Your task to perform on an android device: Search for dell alienware on amazon, select the first entry, add it to the cart, then select checkout. Image 0: 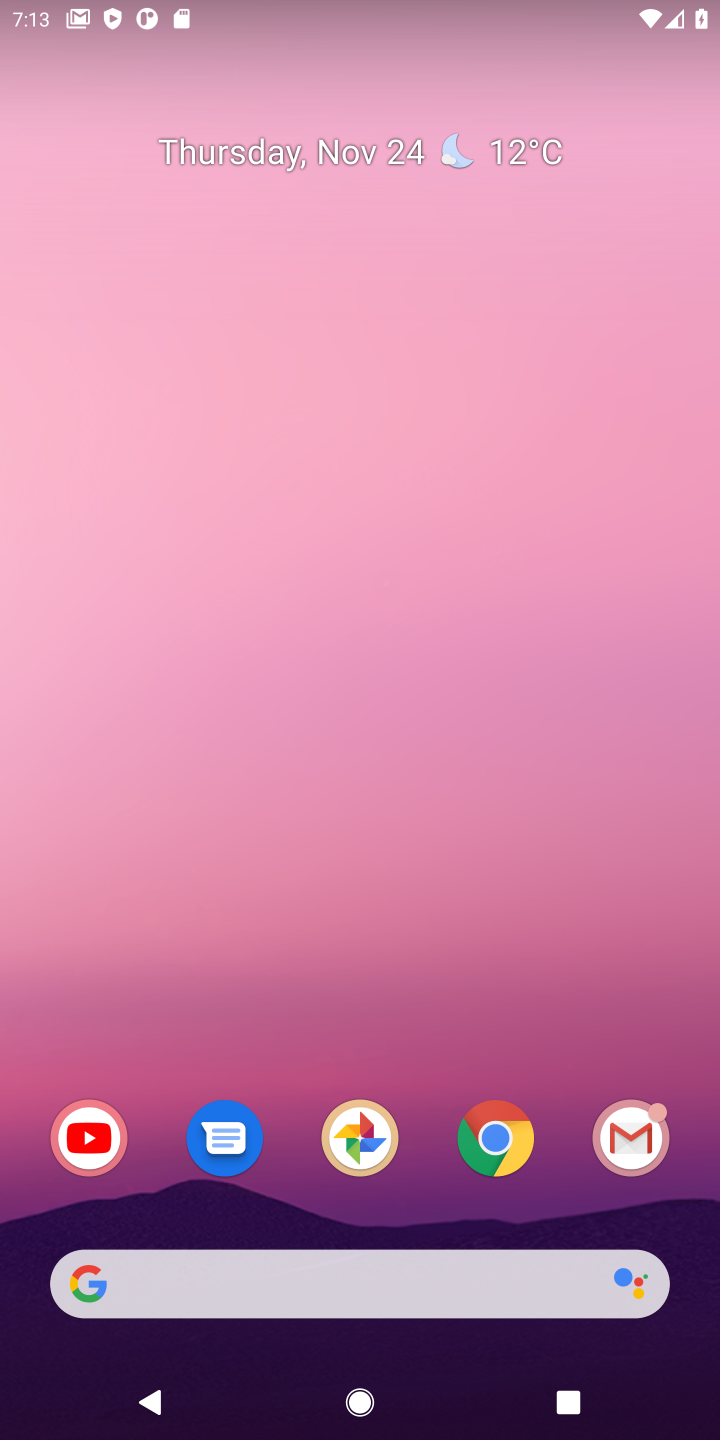
Step 0: click (499, 1159)
Your task to perform on an android device: Search for dell alienware on amazon, select the first entry, add it to the cart, then select checkout. Image 1: 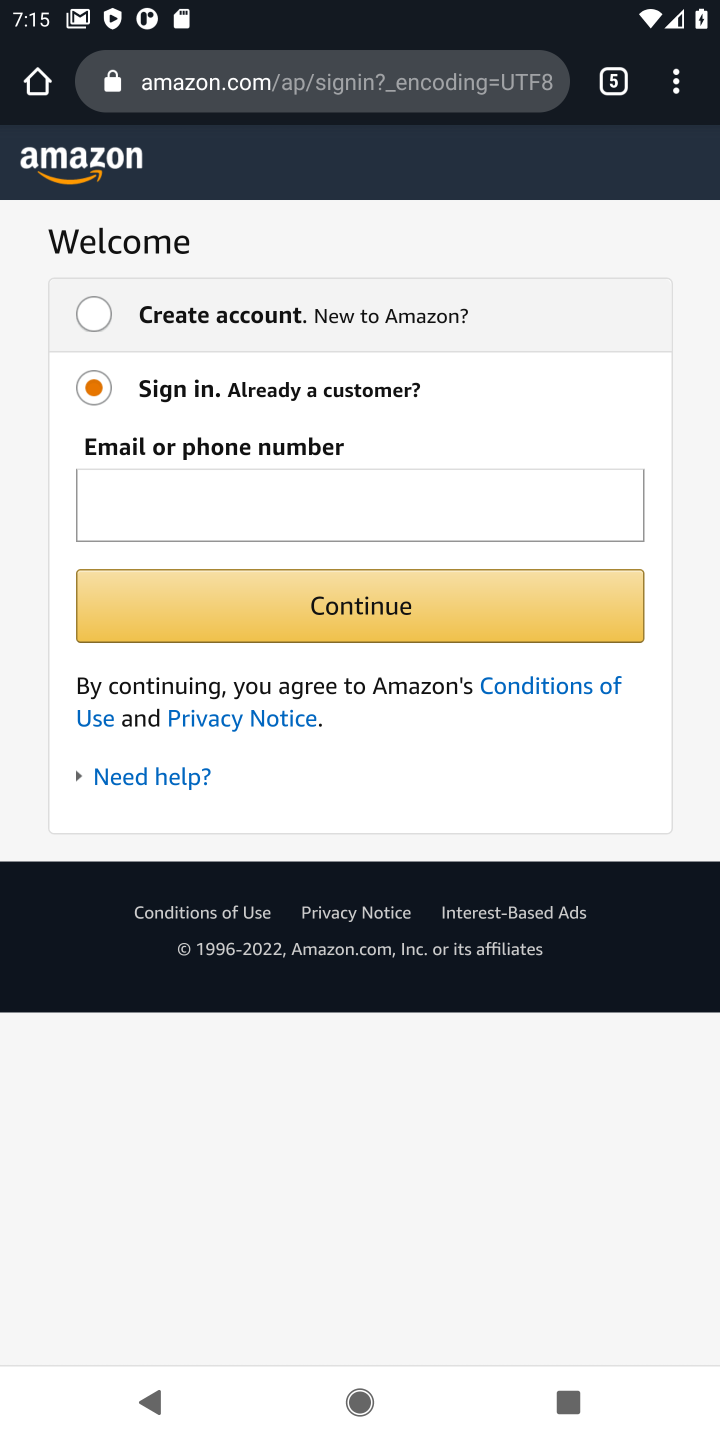
Step 1: press back button
Your task to perform on an android device: Search for dell alienware on amazon, select the first entry, add it to the cart, then select checkout. Image 2: 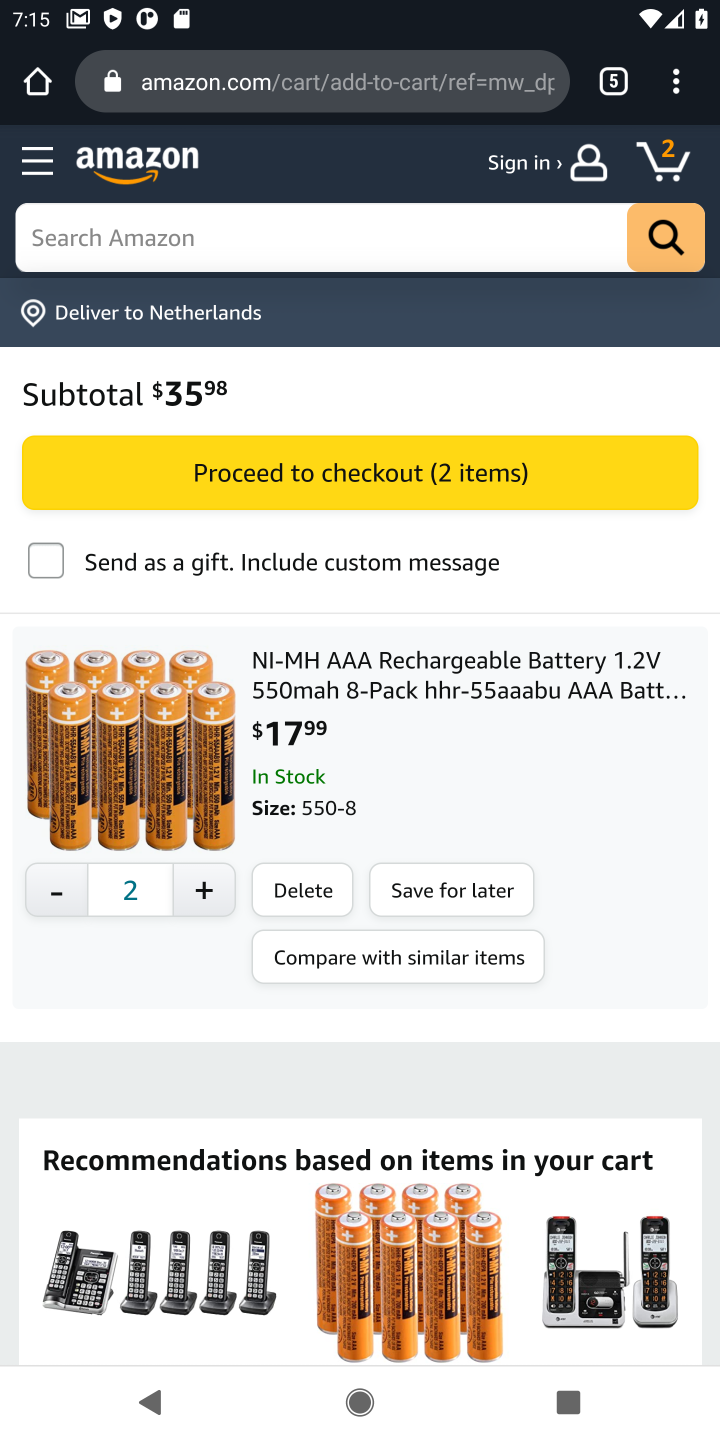
Step 2: click (358, 228)
Your task to perform on an android device: Search for dell alienware on amazon, select the first entry, add it to the cart, then select checkout. Image 3: 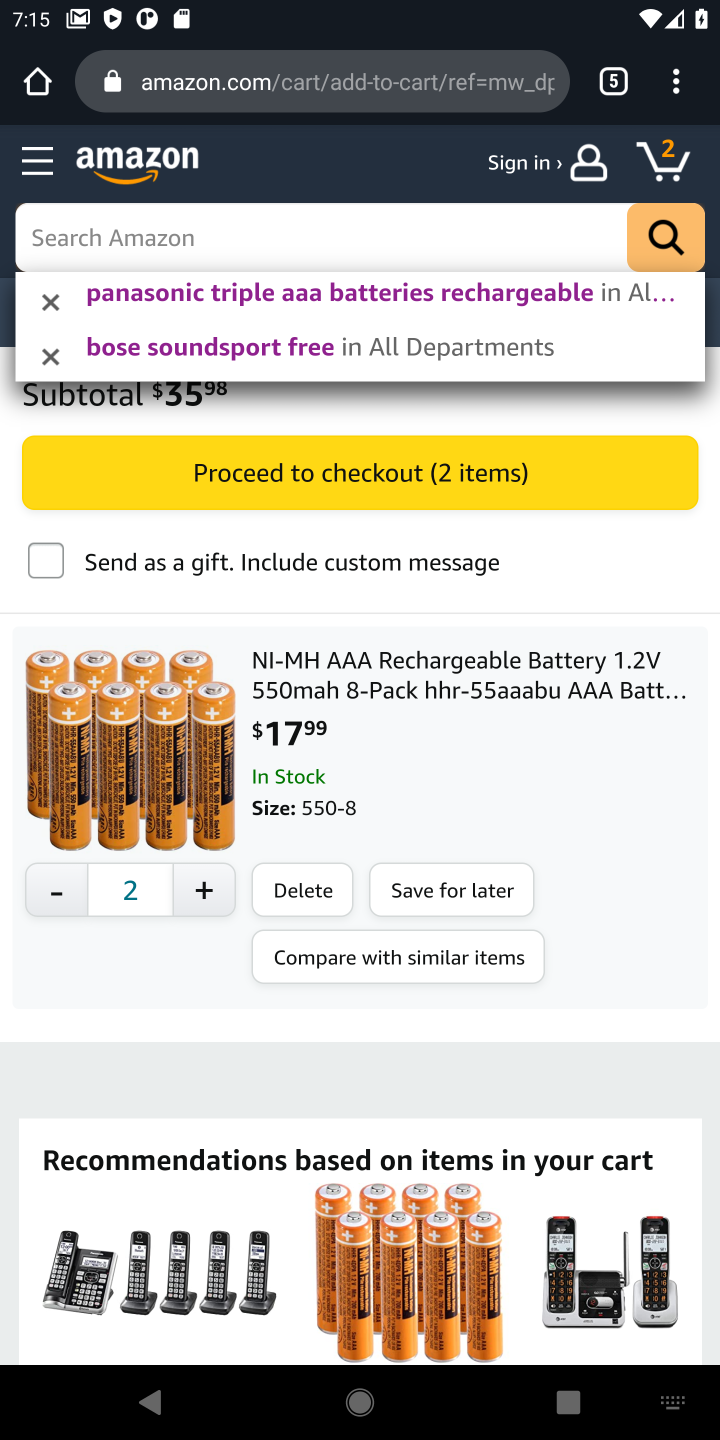
Step 3: click (314, 249)
Your task to perform on an android device: Search for dell alienware on amazon, select the first entry, add it to the cart, then select checkout. Image 4: 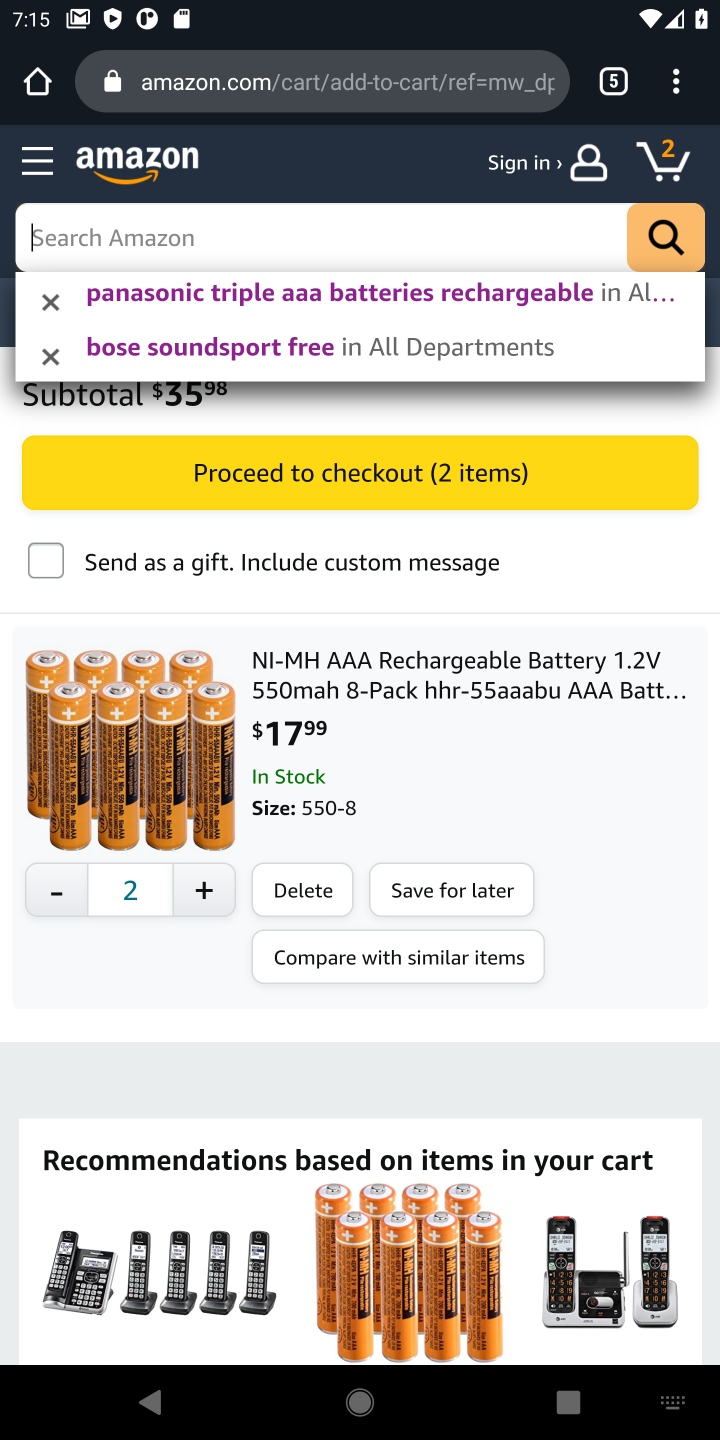
Step 4: type "dell alienware on amazon"
Your task to perform on an android device: Search for dell alienware on amazon, select the first entry, add it to the cart, then select checkout. Image 5: 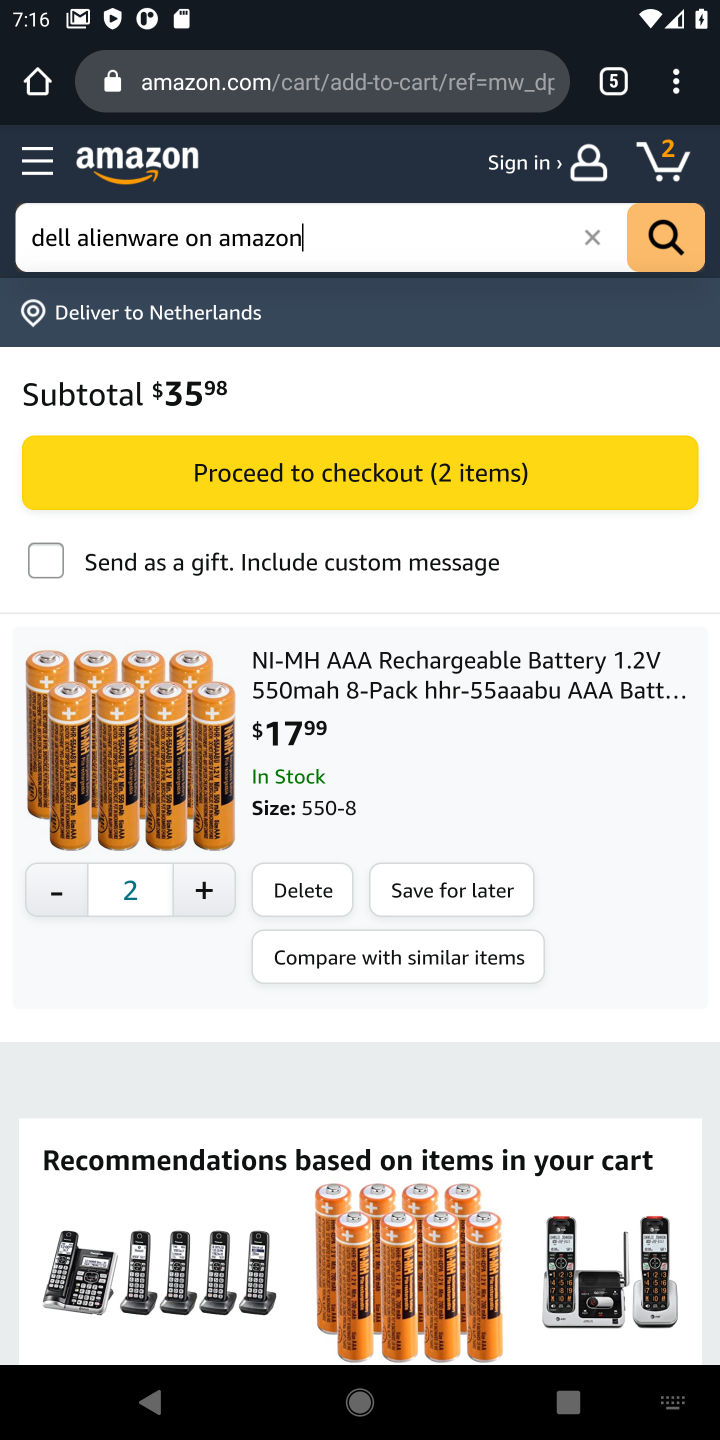
Step 5: click (673, 230)
Your task to perform on an android device: Search for dell alienware on amazon, select the first entry, add it to the cart, then select checkout. Image 6: 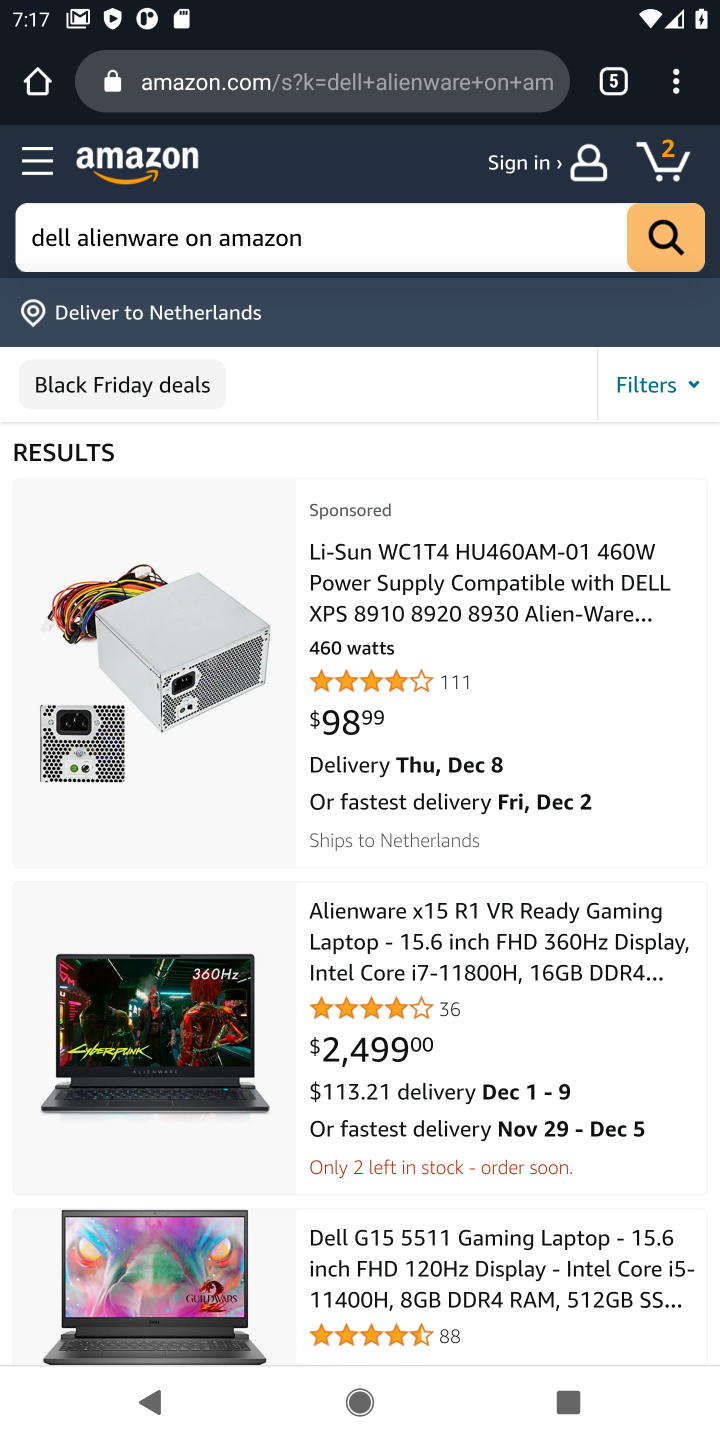
Step 6: drag from (422, 1026) to (381, 704)
Your task to perform on an android device: Search for dell alienware on amazon, select the first entry, add it to the cart, then select checkout. Image 7: 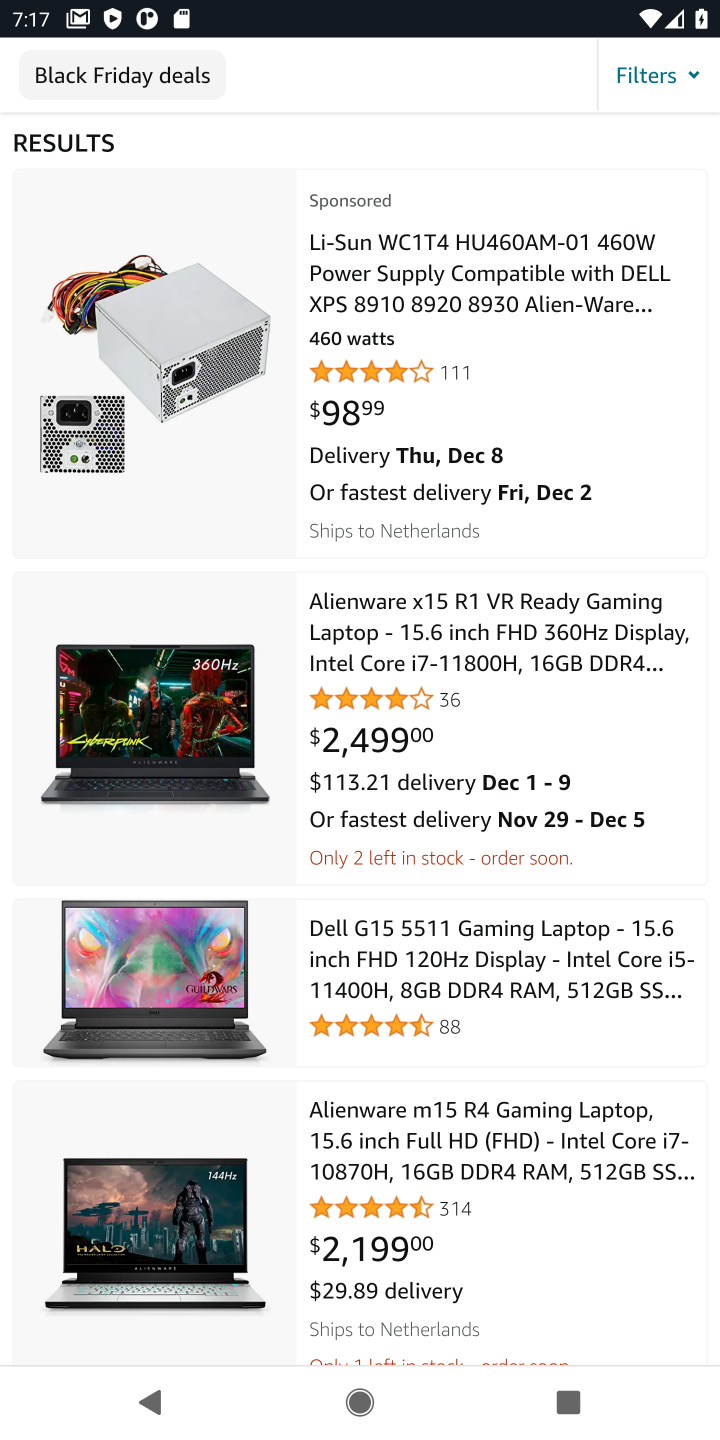
Step 7: click (384, 660)
Your task to perform on an android device: Search for dell alienware on amazon, select the first entry, add it to the cart, then select checkout. Image 8: 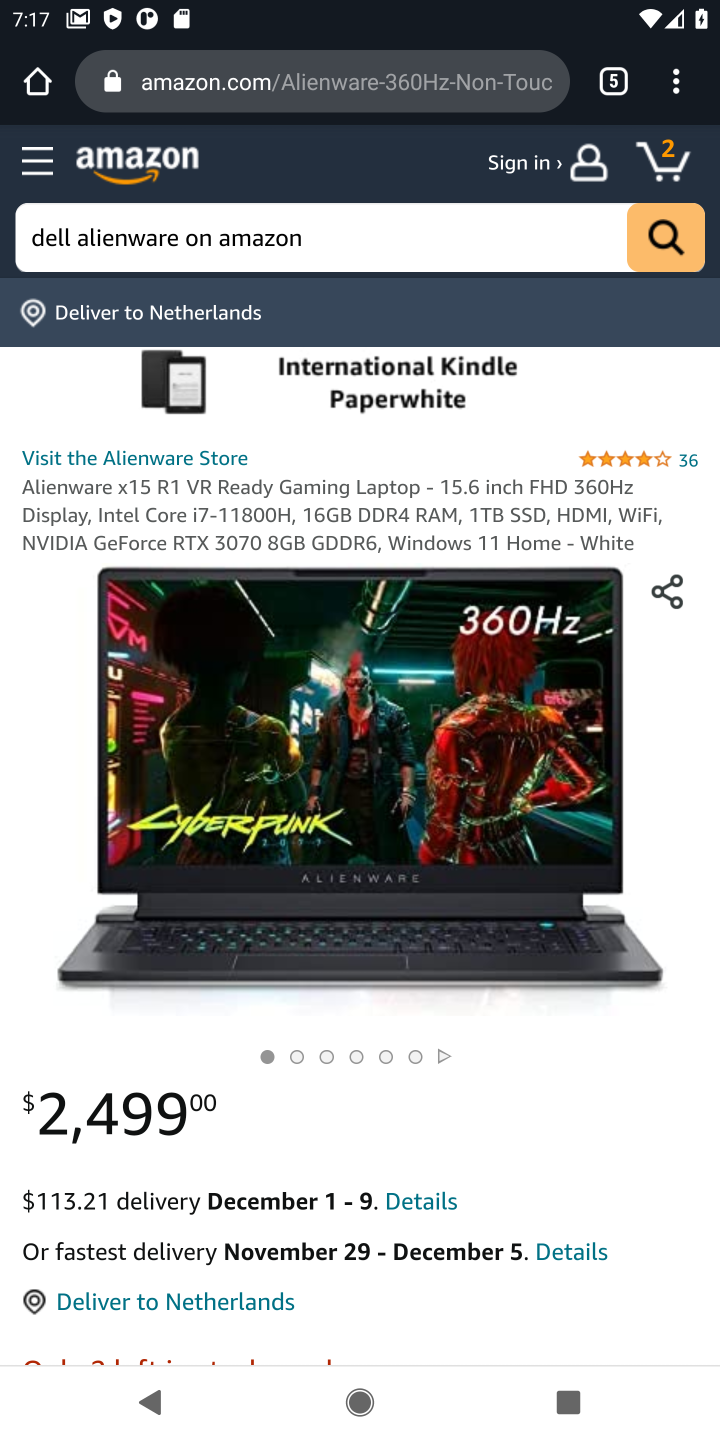
Step 8: drag from (340, 798) to (344, 365)
Your task to perform on an android device: Search for dell alienware on amazon, select the first entry, add it to the cart, then select checkout. Image 9: 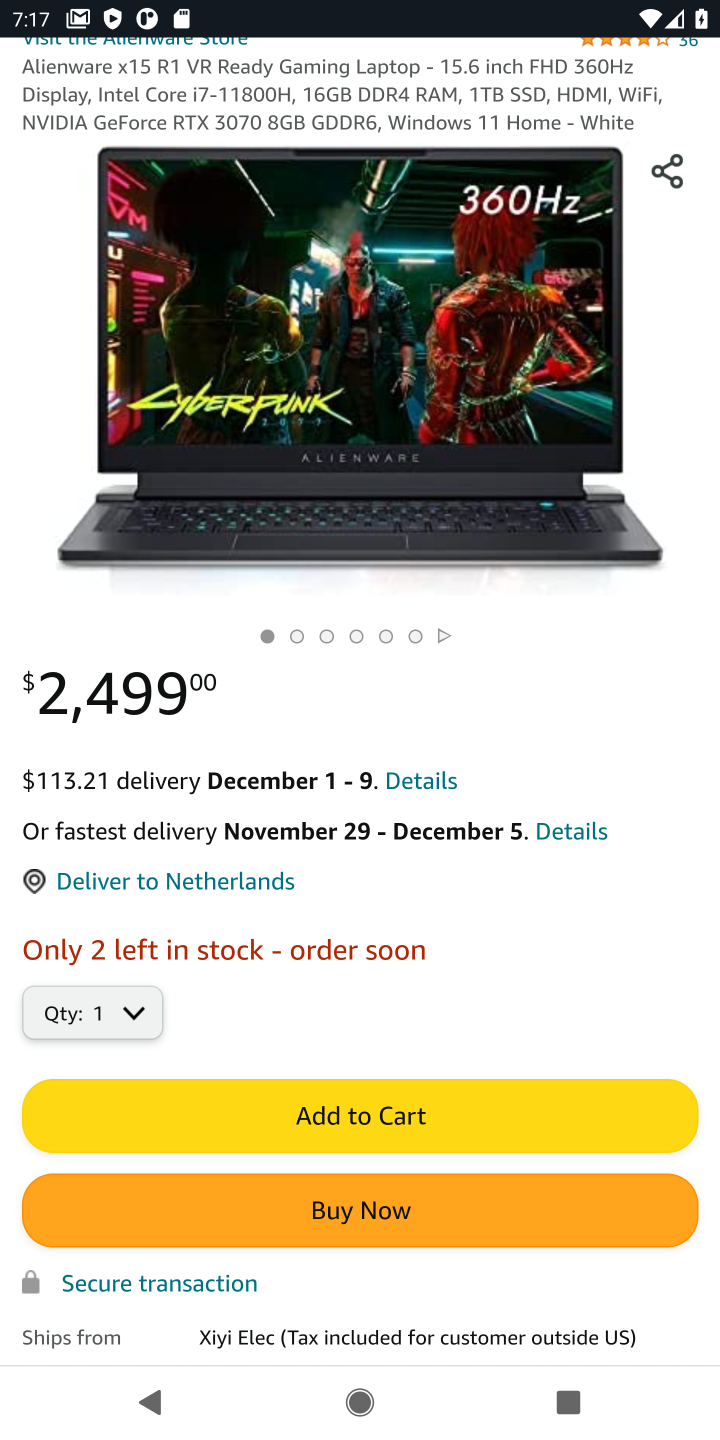
Step 9: drag from (458, 968) to (447, 378)
Your task to perform on an android device: Search for dell alienware on amazon, select the first entry, add it to the cart, then select checkout. Image 10: 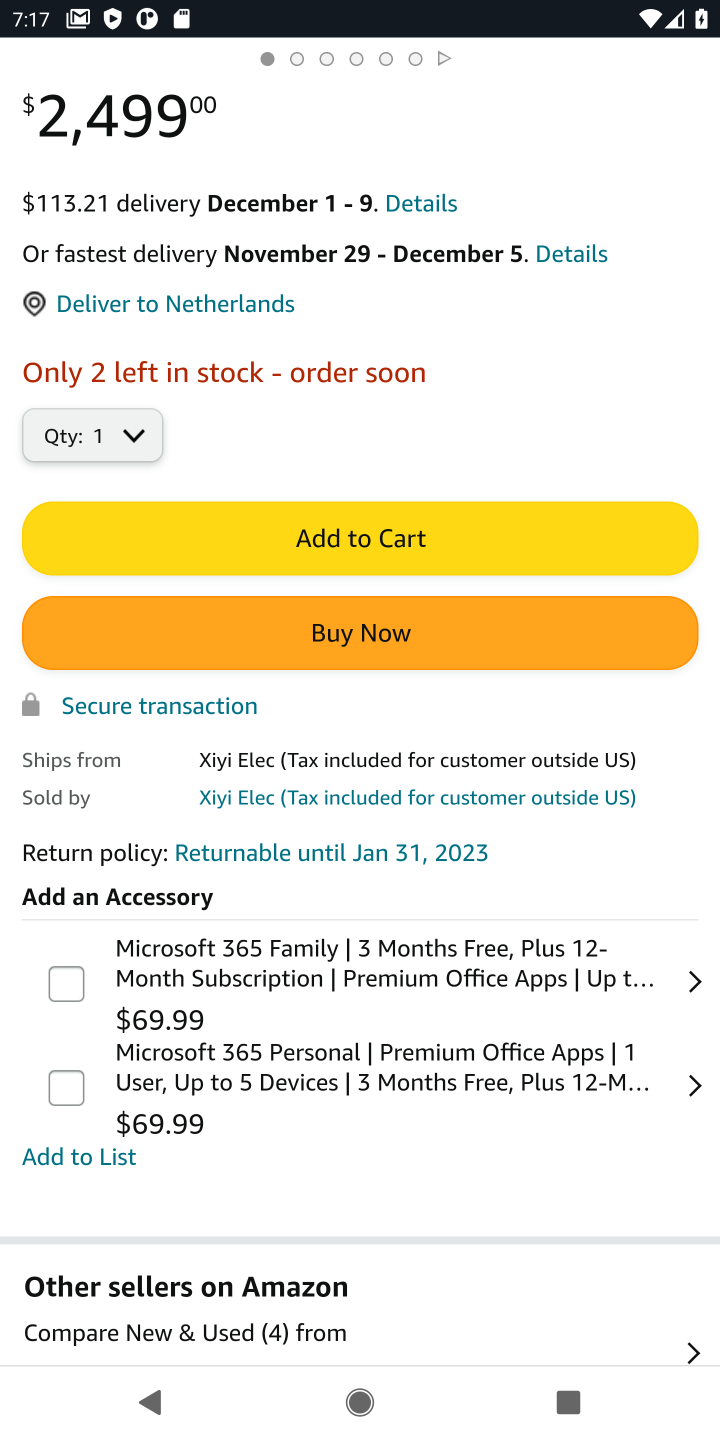
Step 10: drag from (389, 1071) to (367, 458)
Your task to perform on an android device: Search for dell alienware on amazon, select the first entry, add it to the cart, then select checkout. Image 11: 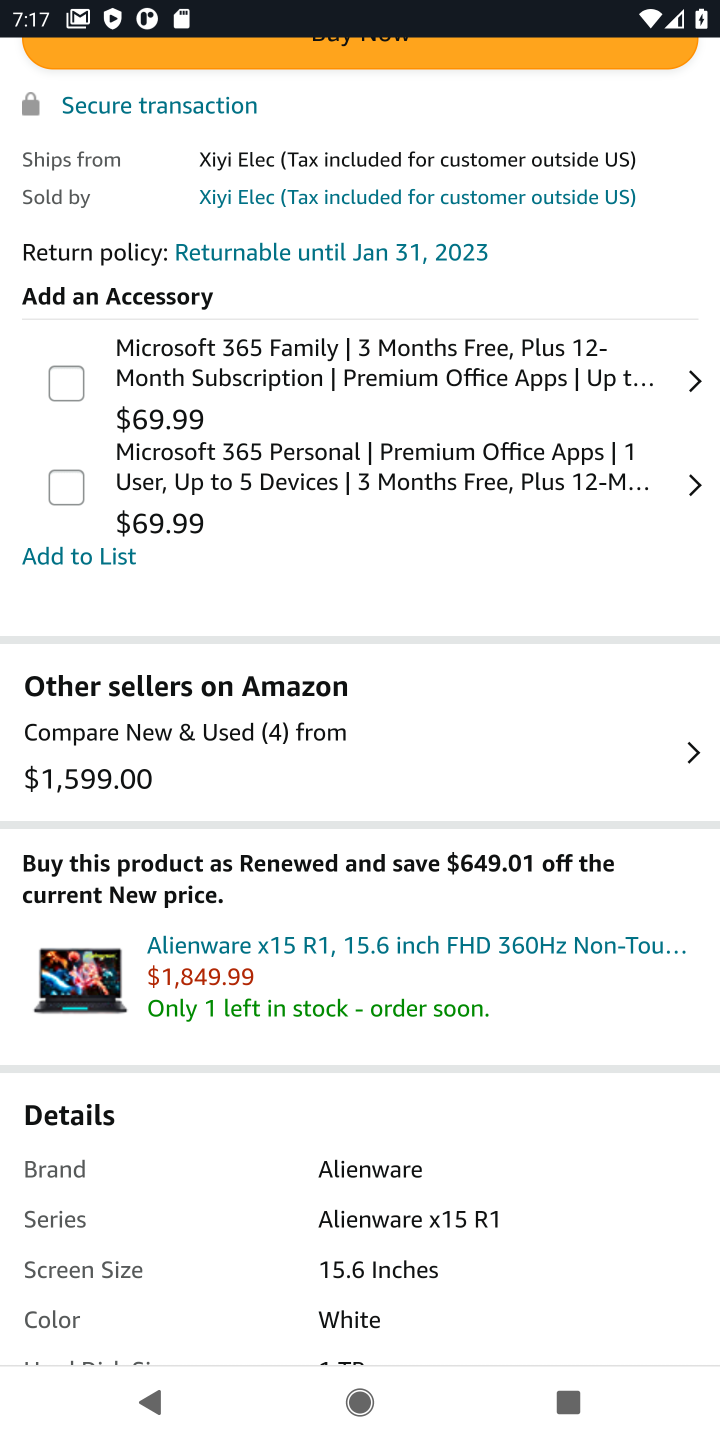
Step 11: drag from (382, 610) to (333, 1050)
Your task to perform on an android device: Search for dell alienware on amazon, select the first entry, add it to the cart, then select checkout. Image 12: 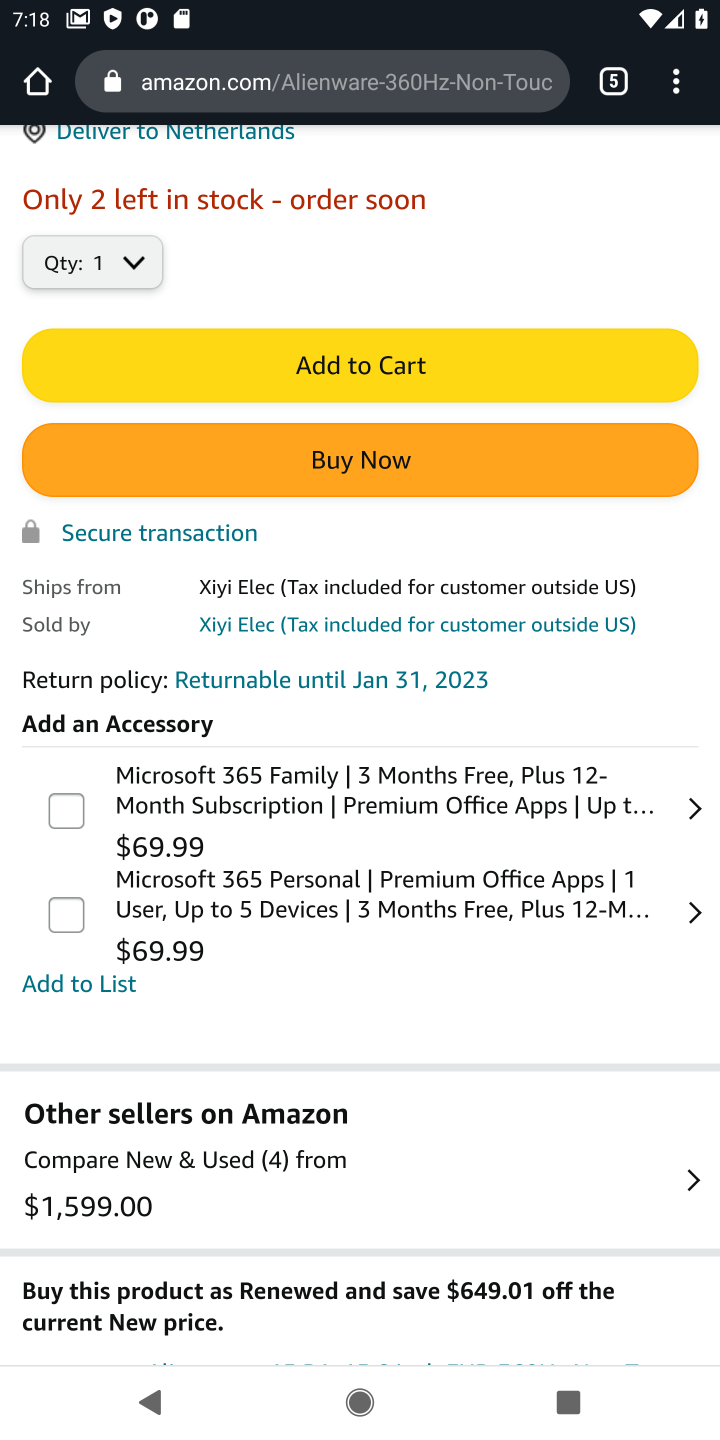
Step 12: click (381, 371)
Your task to perform on an android device: Search for dell alienware on amazon, select the first entry, add it to the cart, then select checkout. Image 13: 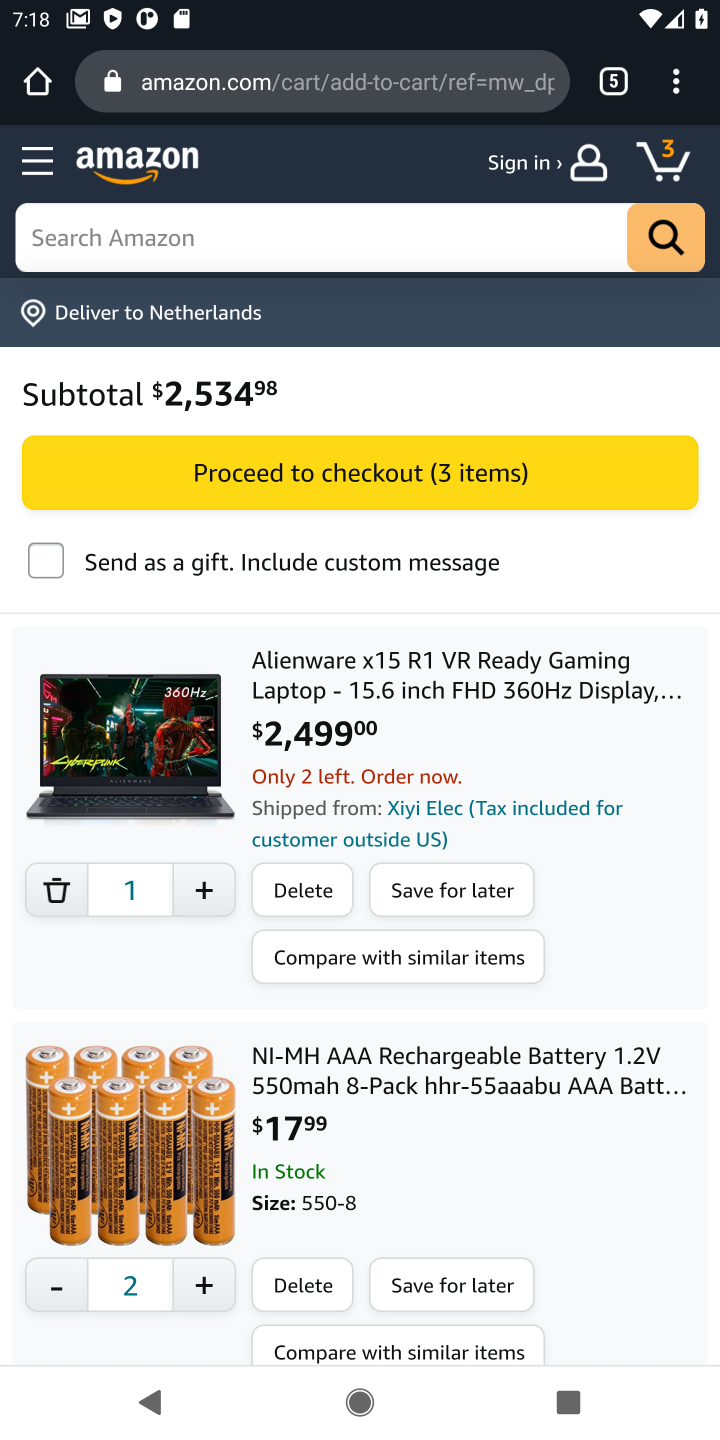
Step 13: click (463, 462)
Your task to perform on an android device: Search for dell alienware on amazon, select the first entry, add it to the cart, then select checkout. Image 14: 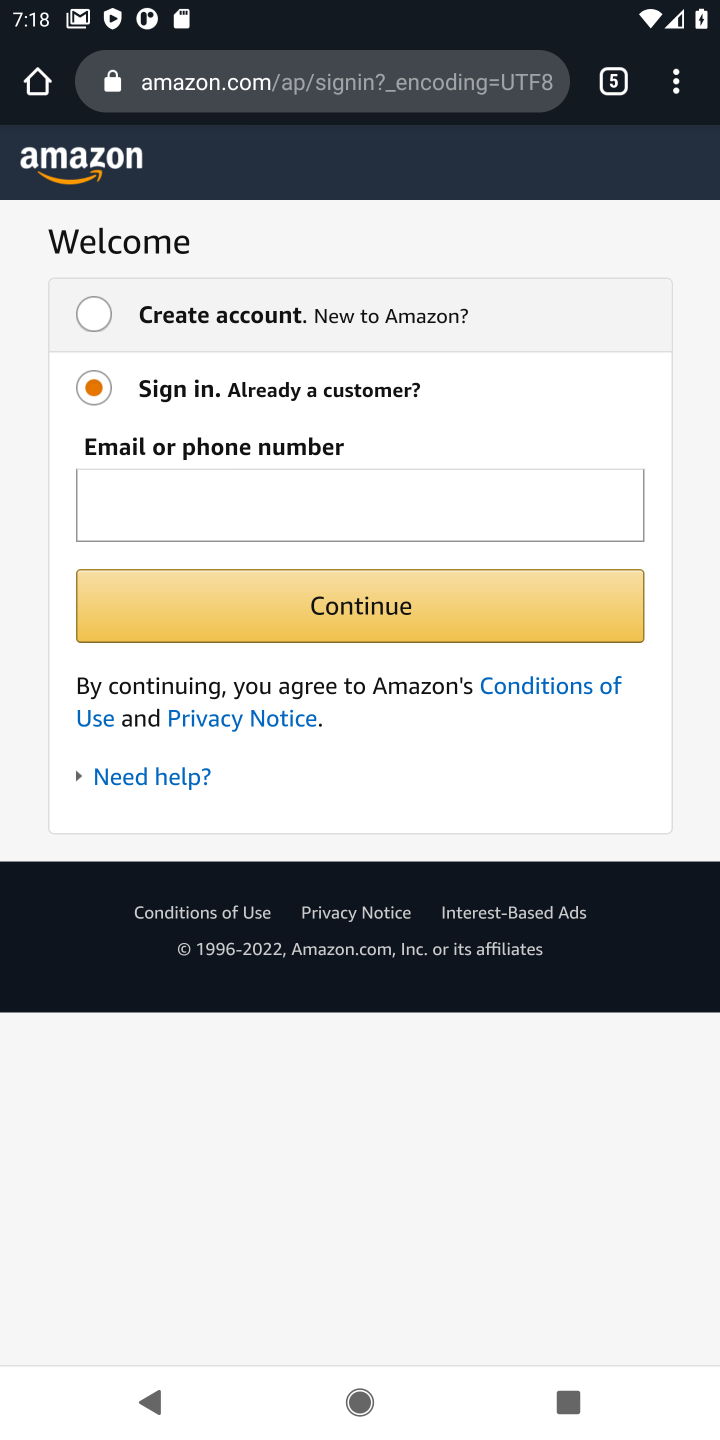
Step 14: task complete